Your task to perform on an android device: find snoozed emails in the gmail app Image 0: 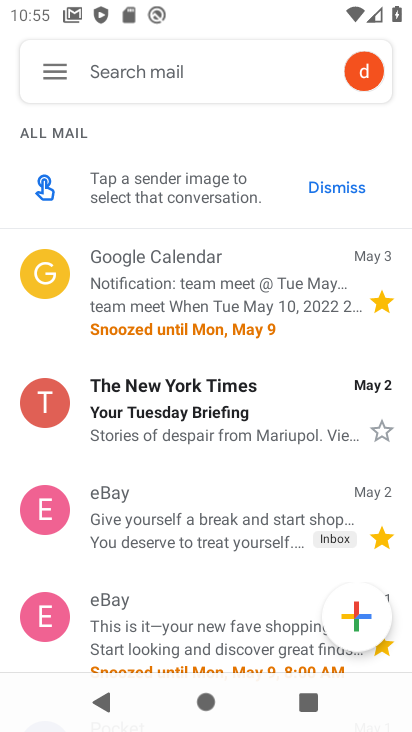
Step 0: click (54, 53)
Your task to perform on an android device: find snoozed emails in the gmail app Image 1: 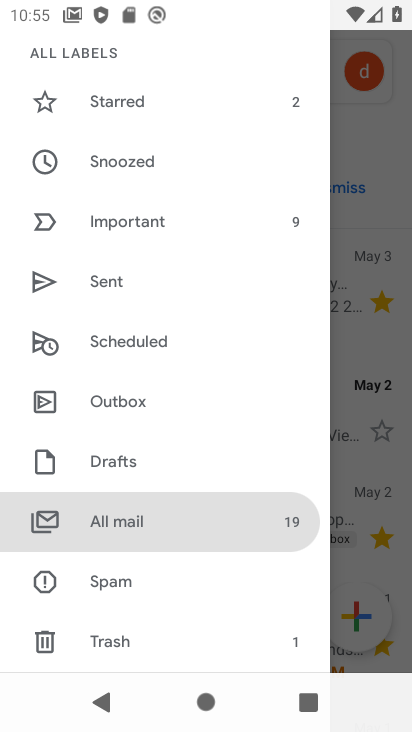
Step 1: click (143, 160)
Your task to perform on an android device: find snoozed emails in the gmail app Image 2: 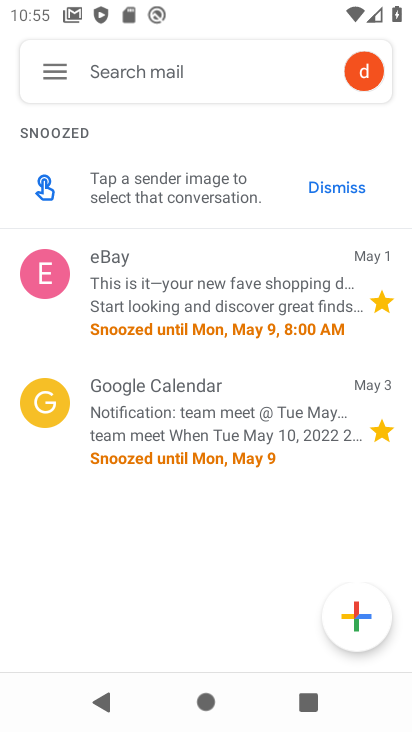
Step 2: task complete